Your task to perform on an android device: Search for razer thresher on amazon, select the first entry, and add it to the cart. Image 0: 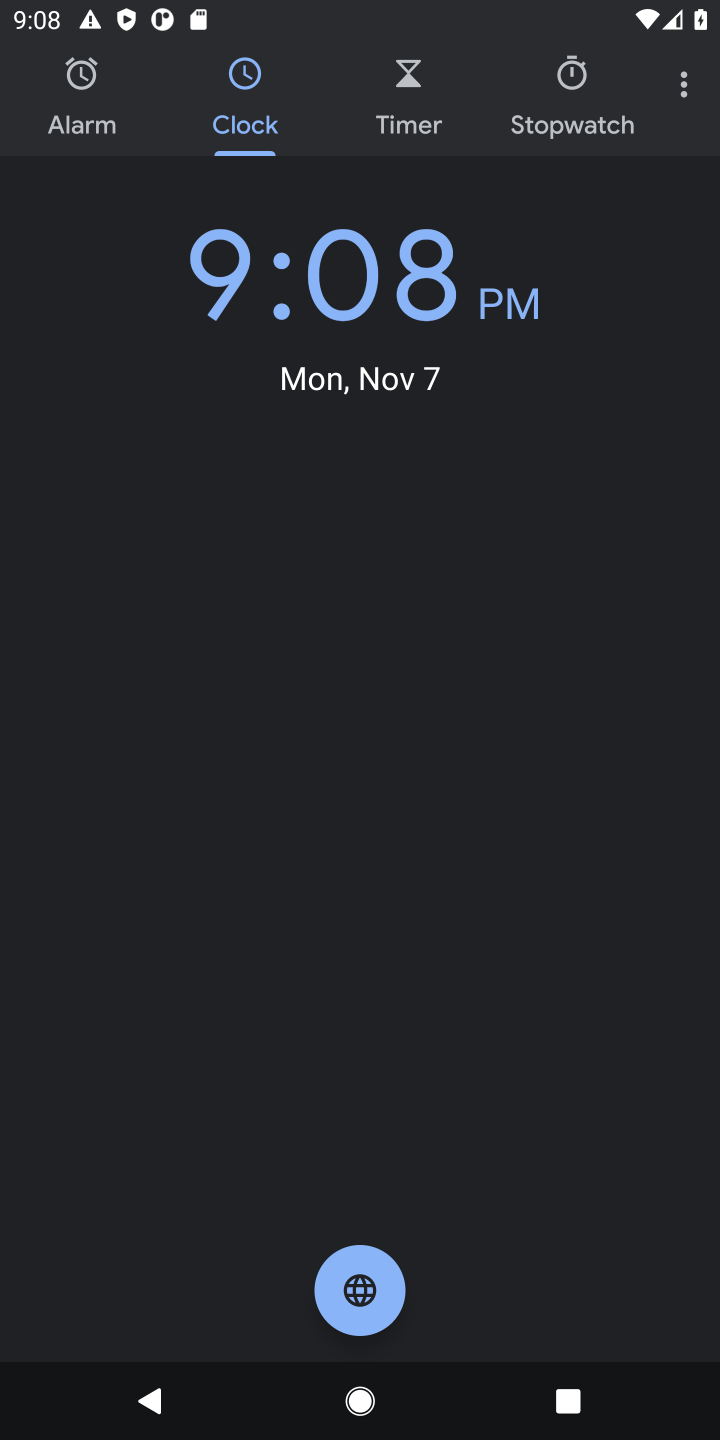
Step 0: press home button
Your task to perform on an android device: Search for razer thresher on amazon, select the first entry, and add it to the cart. Image 1: 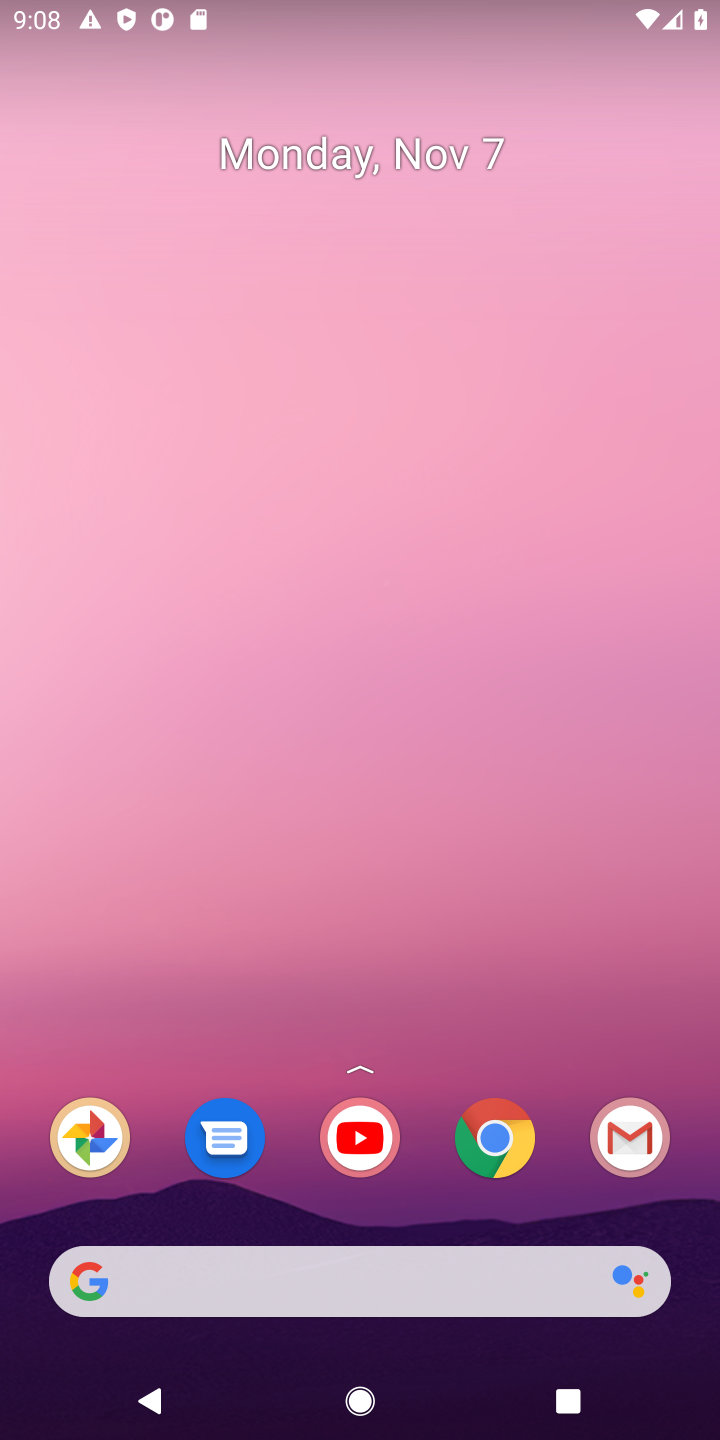
Step 1: drag from (290, 1222) to (403, 304)
Your task to perform on an android device: Search for razer thresher on amazon, select the first entry, and add it to the cart. Image 2: 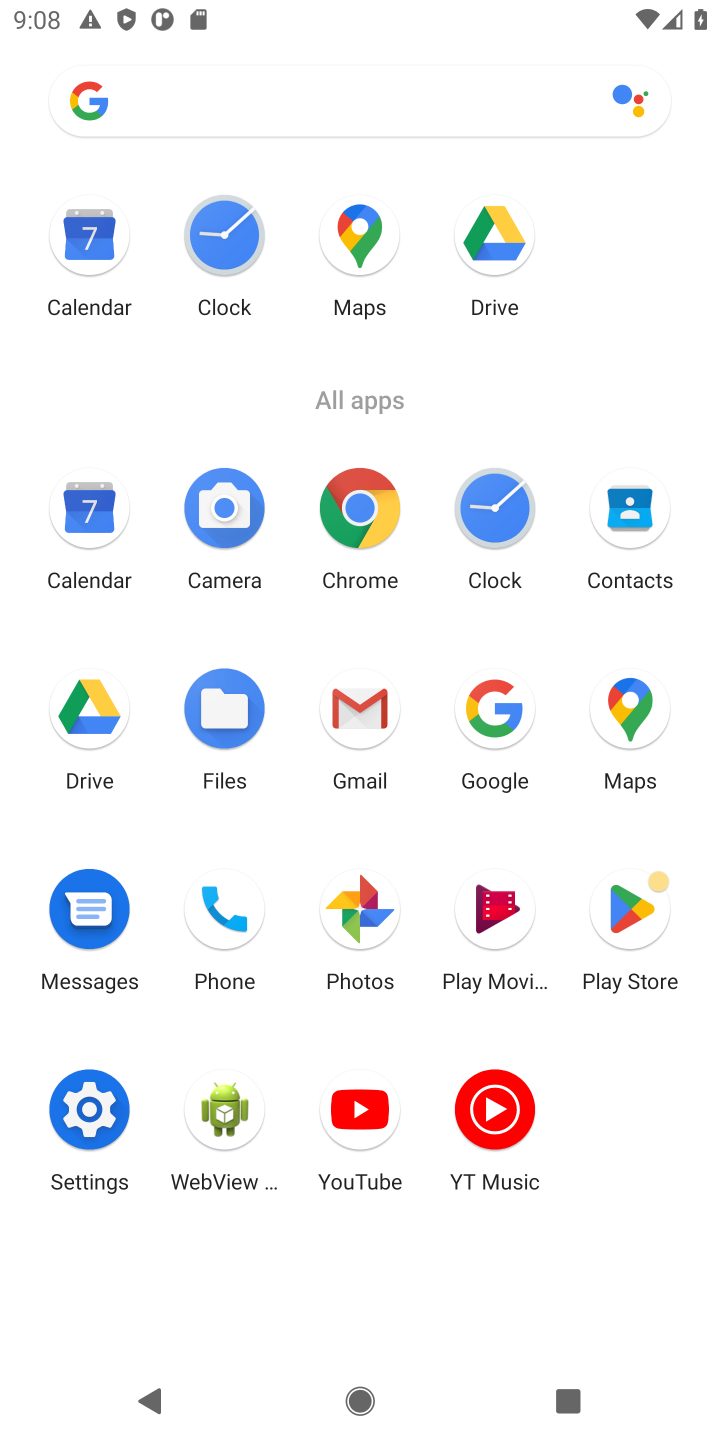
Step 2: click (361, 504)
Your task to perform on an android device: Search for razer thresher on amazon, select the first entry, and add it to the cart. Image 3: 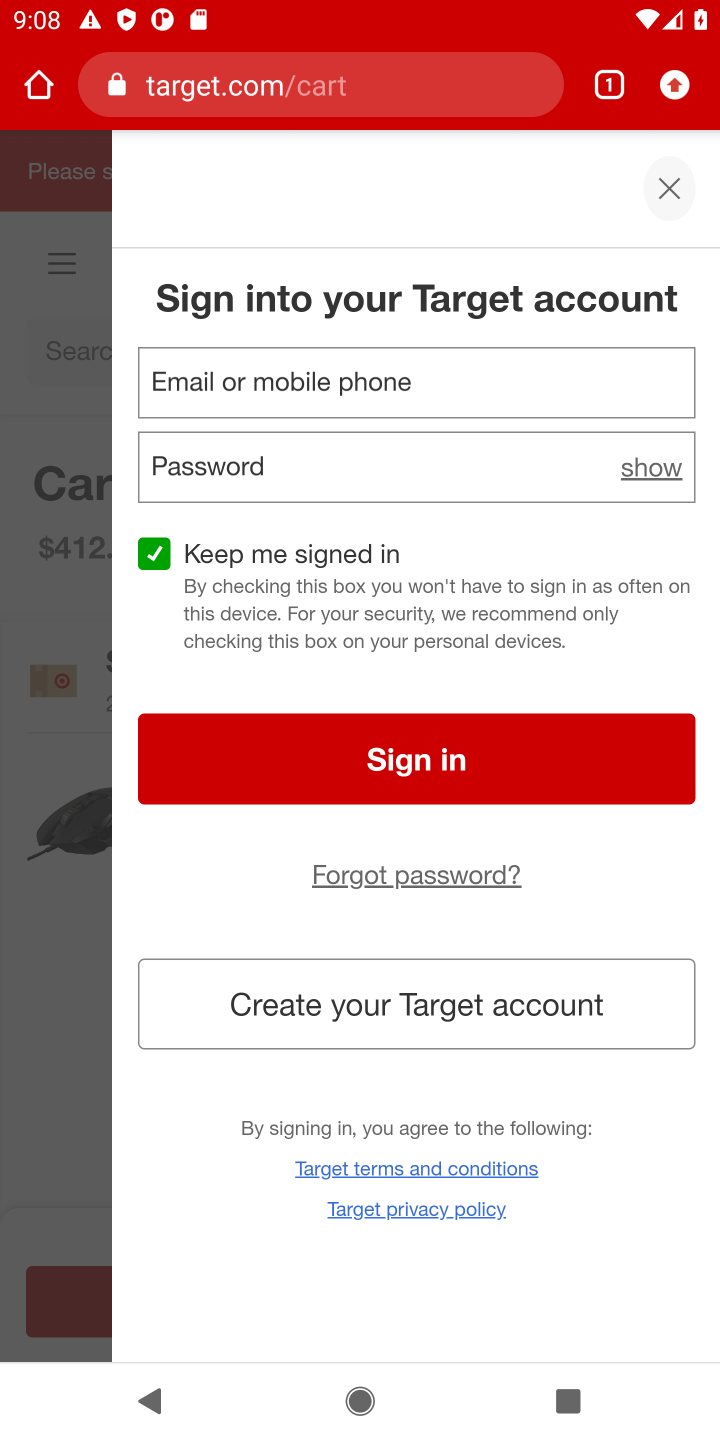
Step 3: click (469, 81)
Your task to perform on an android device: Search for razer thresher on amazon, select the first entry, and add it to the cart. Image 4: 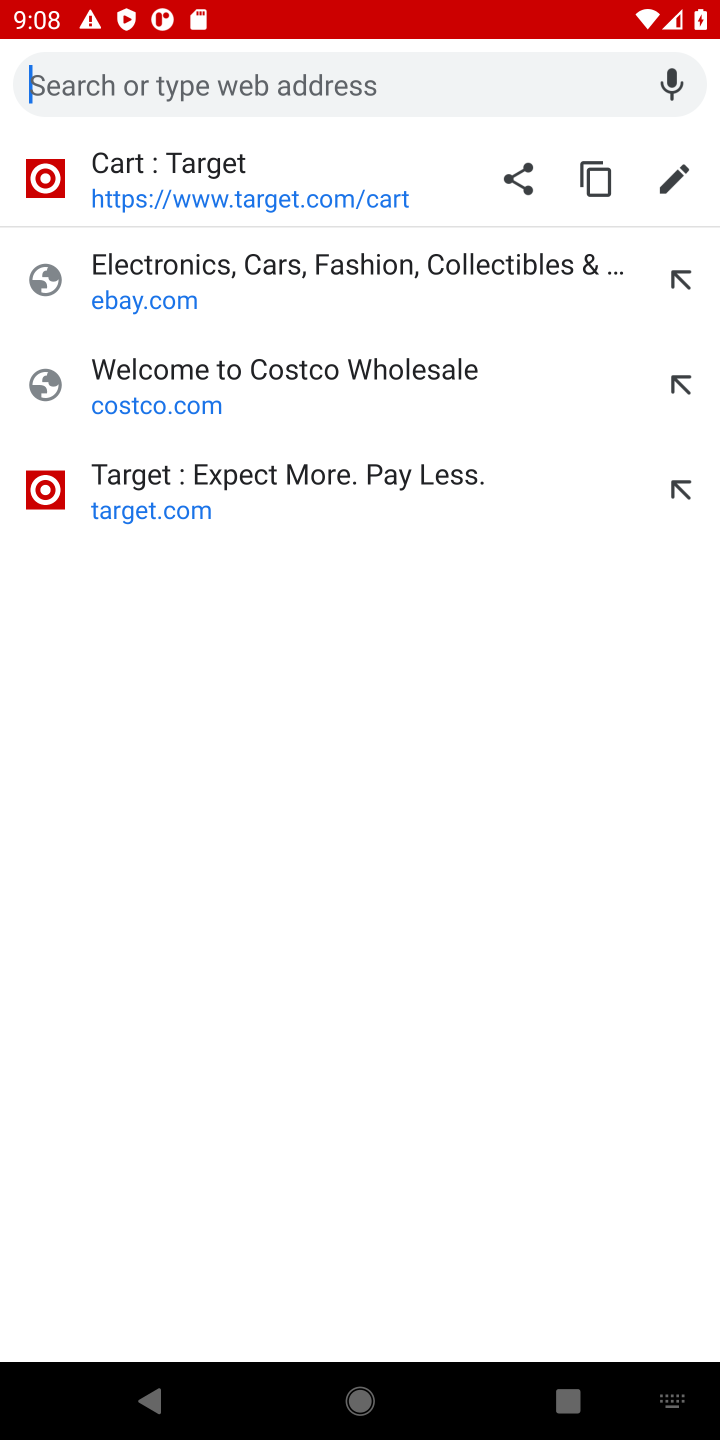
Step 4: type "amazon.com"
Your task to perform on an android device: Search for razer thresher on amazon, select the first entry, and add it to the cart. Image 5: 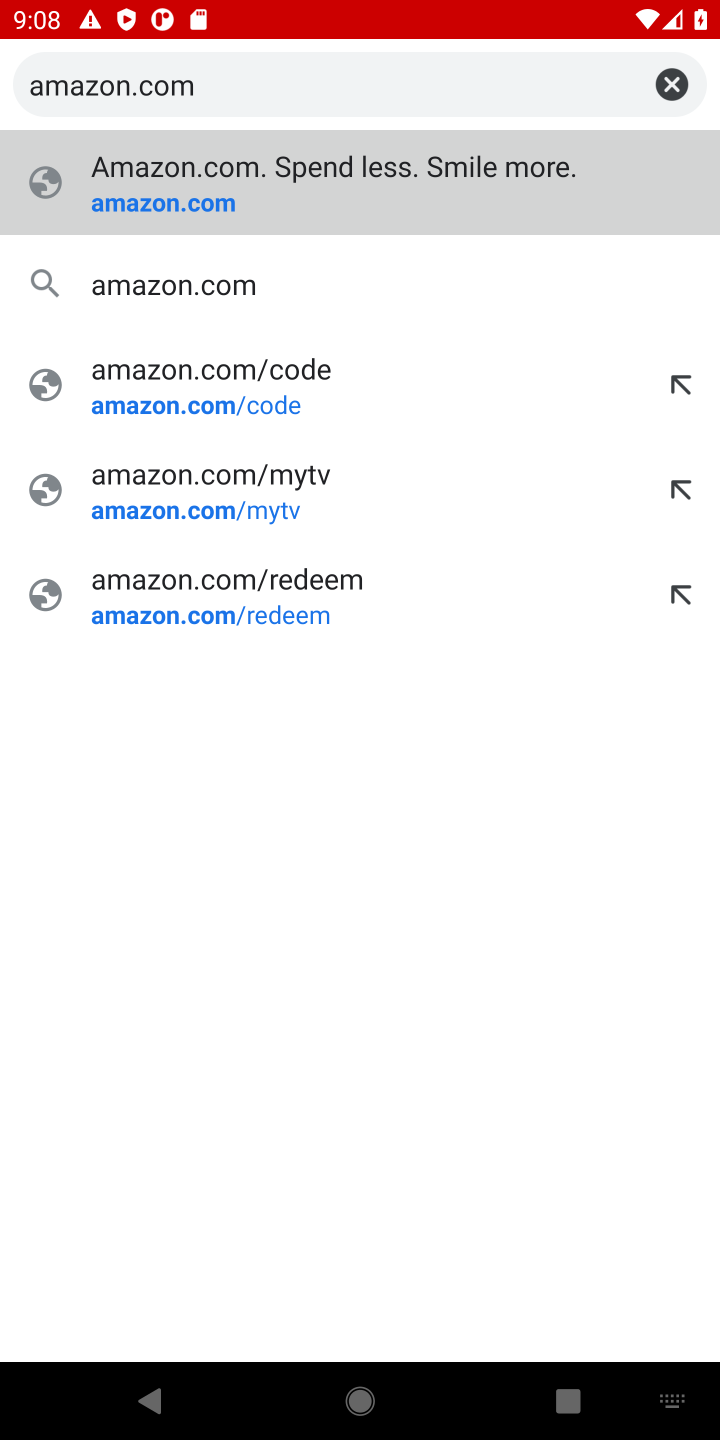
Step 5: press enter
Your task to perform on an android device: Search for razer thresher on amazon, select the first entry, and add it to the cart. Image 6: 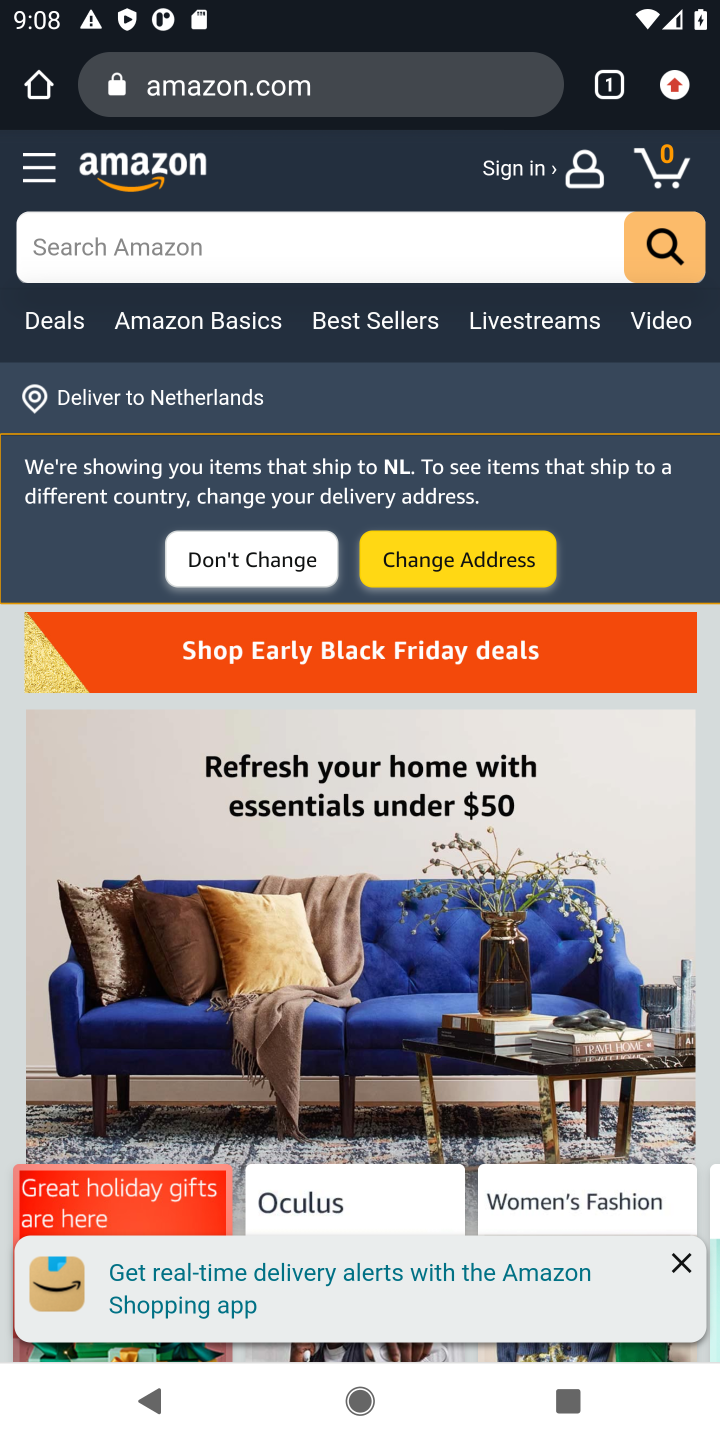
Step 6: click (440, 238)
Your task to perform on an android device: Search for razer thresher on amazon, select the first entry, and add it to the cart. Image 7: 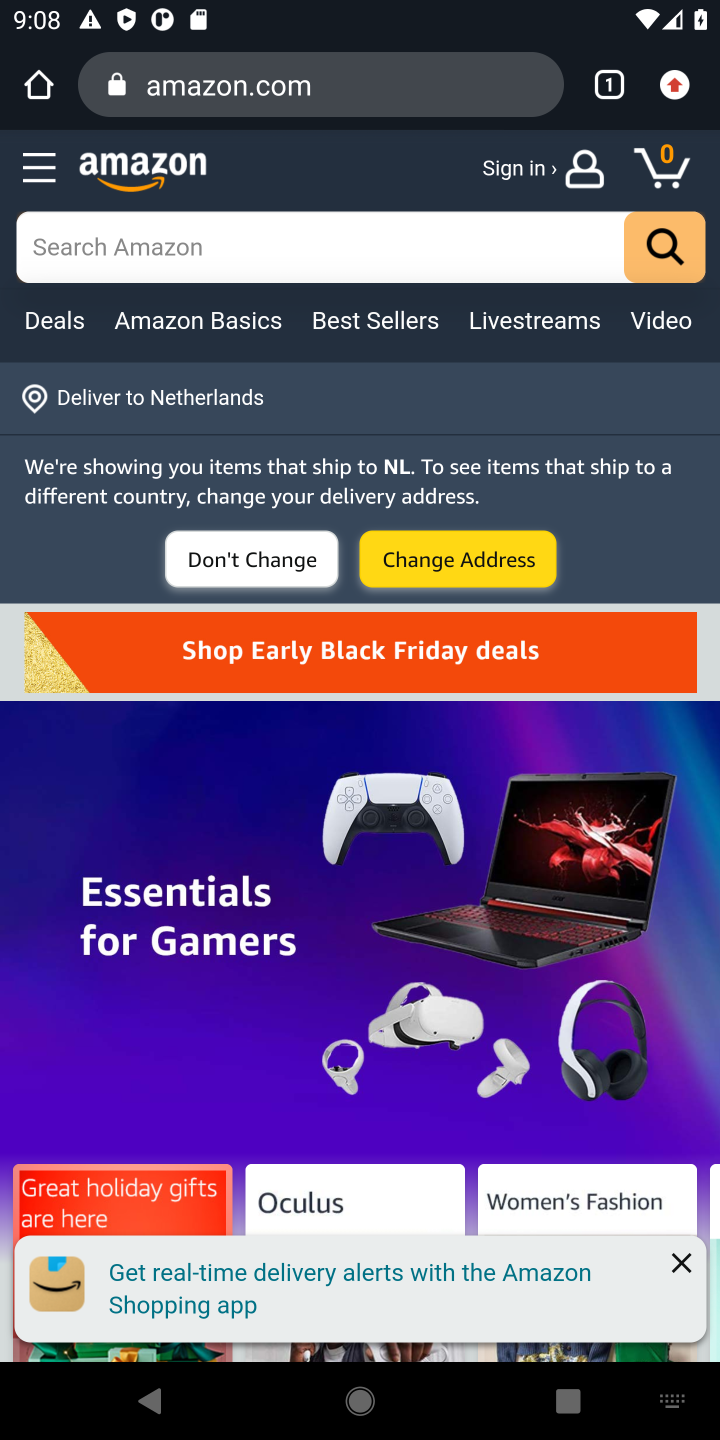
Step 7: type "razer thresher"
Your task to perform on an android device: Search for razer thresher on amazon, select the first entry, and add it to the cart. Image 8: 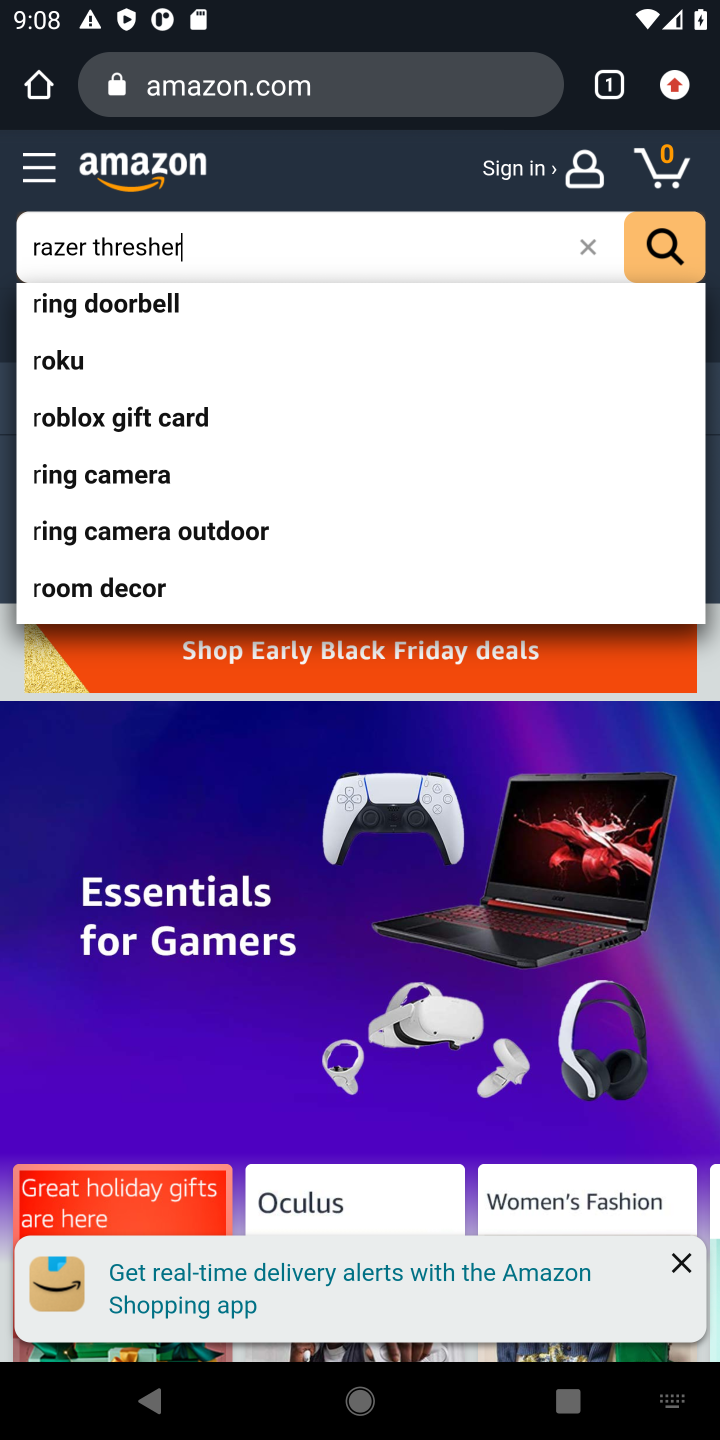
Step 8: press enter
Your task to perform on an android device: Search for razer thresher on amazon, select the first entry, and add it to the cart. Image 9: 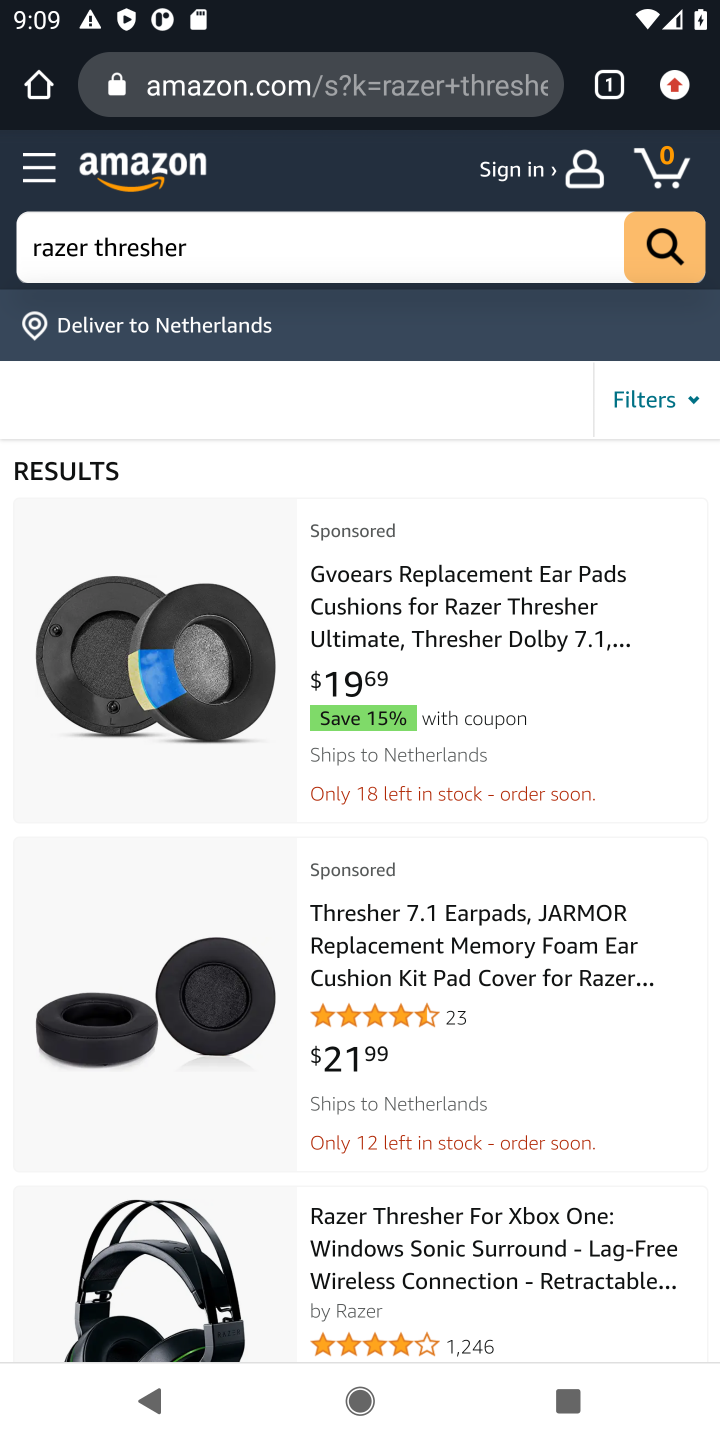
Step 9: drag from (470, 1122) to (530, 620)
Your task to perform on an android device: Search for razer thresher on amazon, select the first entry, and add it to the cart. Image 10: 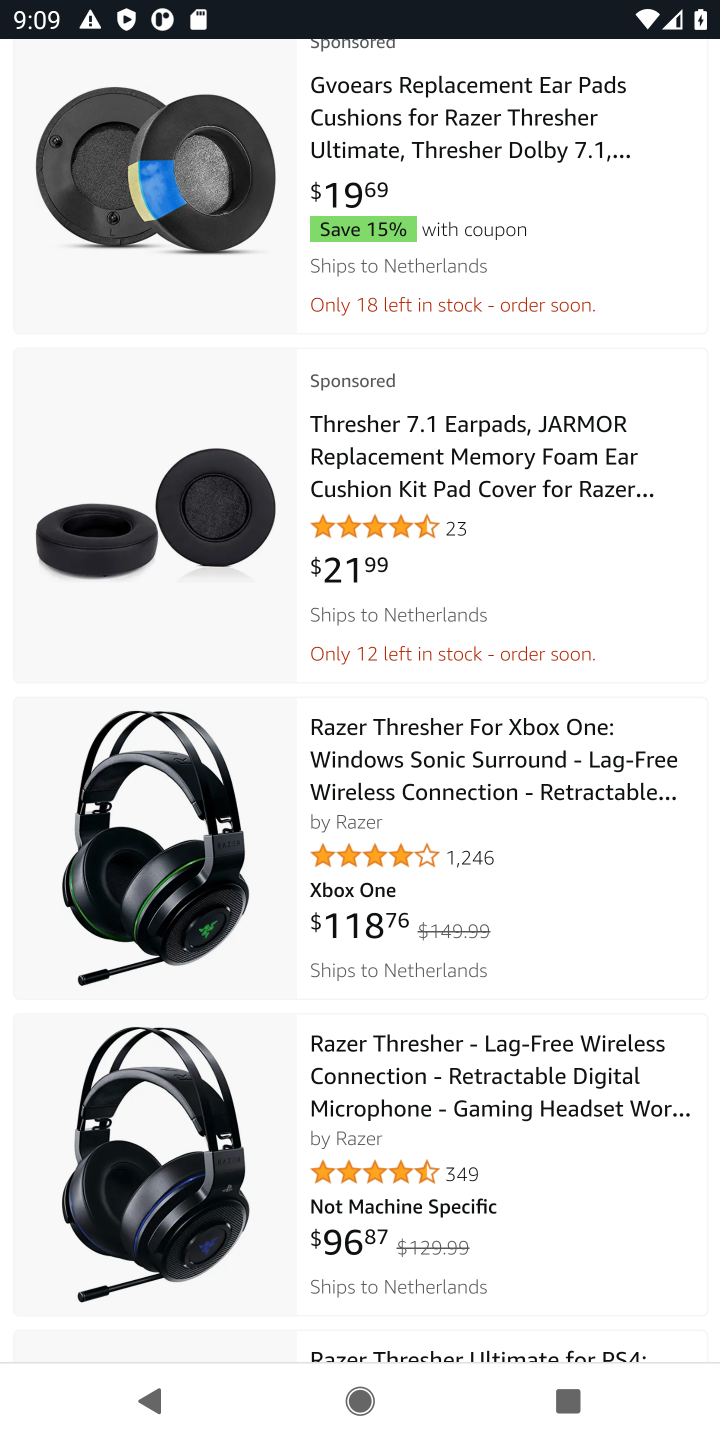
Step 10: click (434, 790)
Your task to perform on an android device: Search for razer thresher on amazon, select the first entry, and add it to the cart. Image 11: 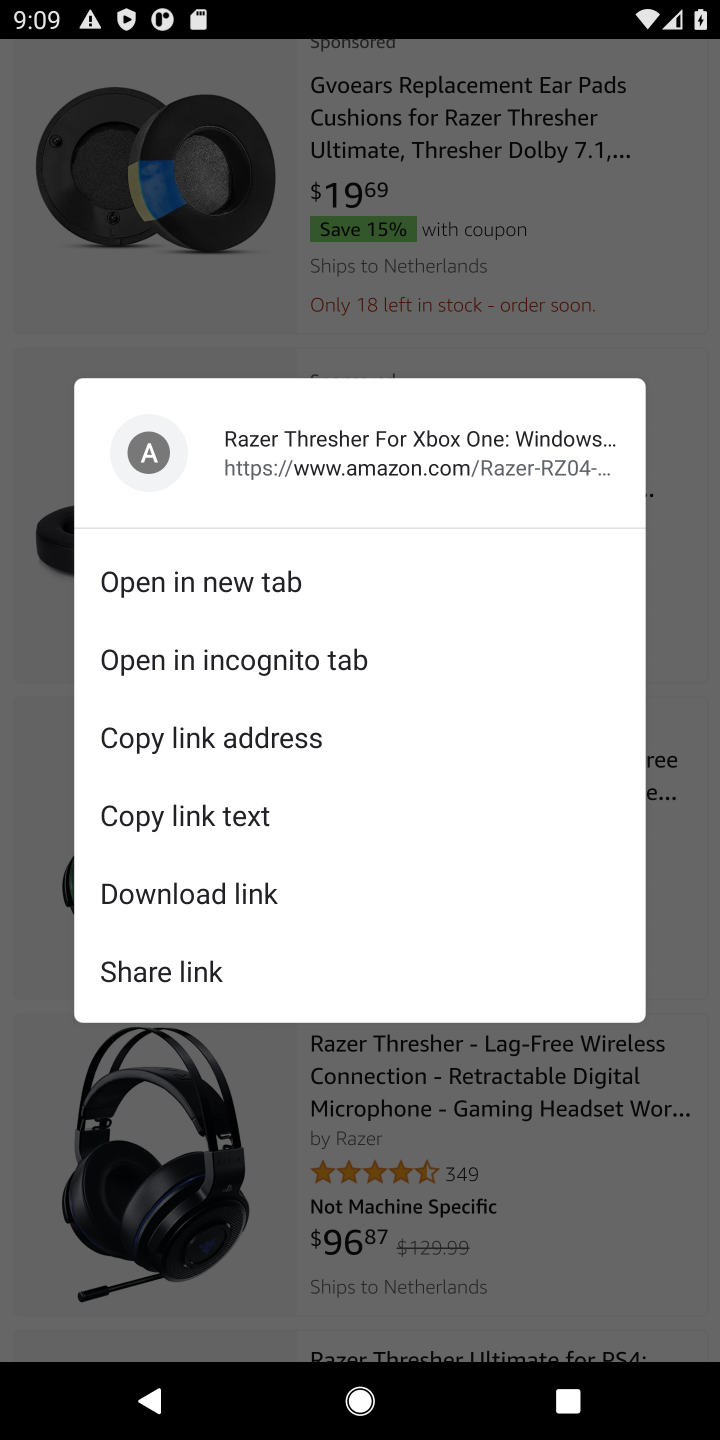
Step 11: click (691, 740)
Your task to perform on an android device: Search for razer thresher on amazon, select the first entry, and add it to the cart. Image 12: 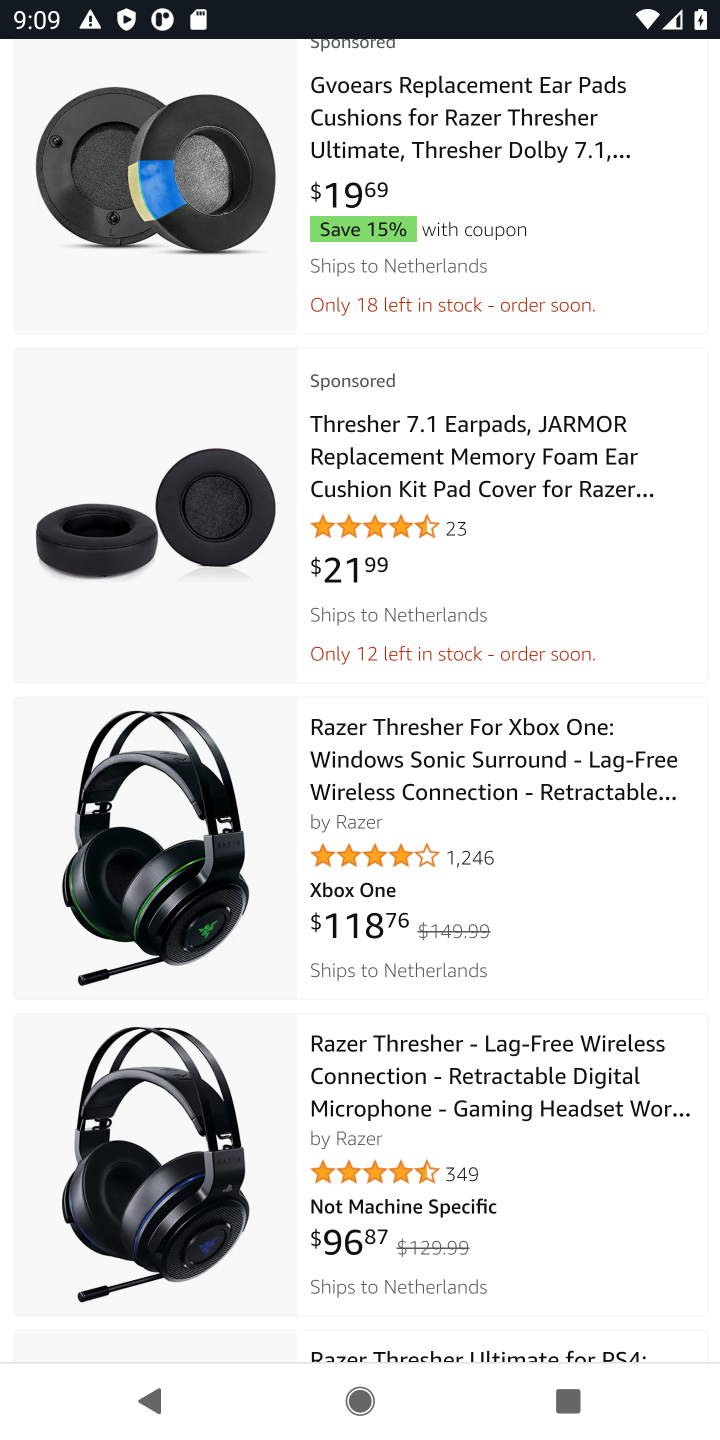
Step 12: click (417, 767)
Your task to perform on an android device: Search for razer thresher on amazon, select the first entry, and add it to the cart. Image 13: 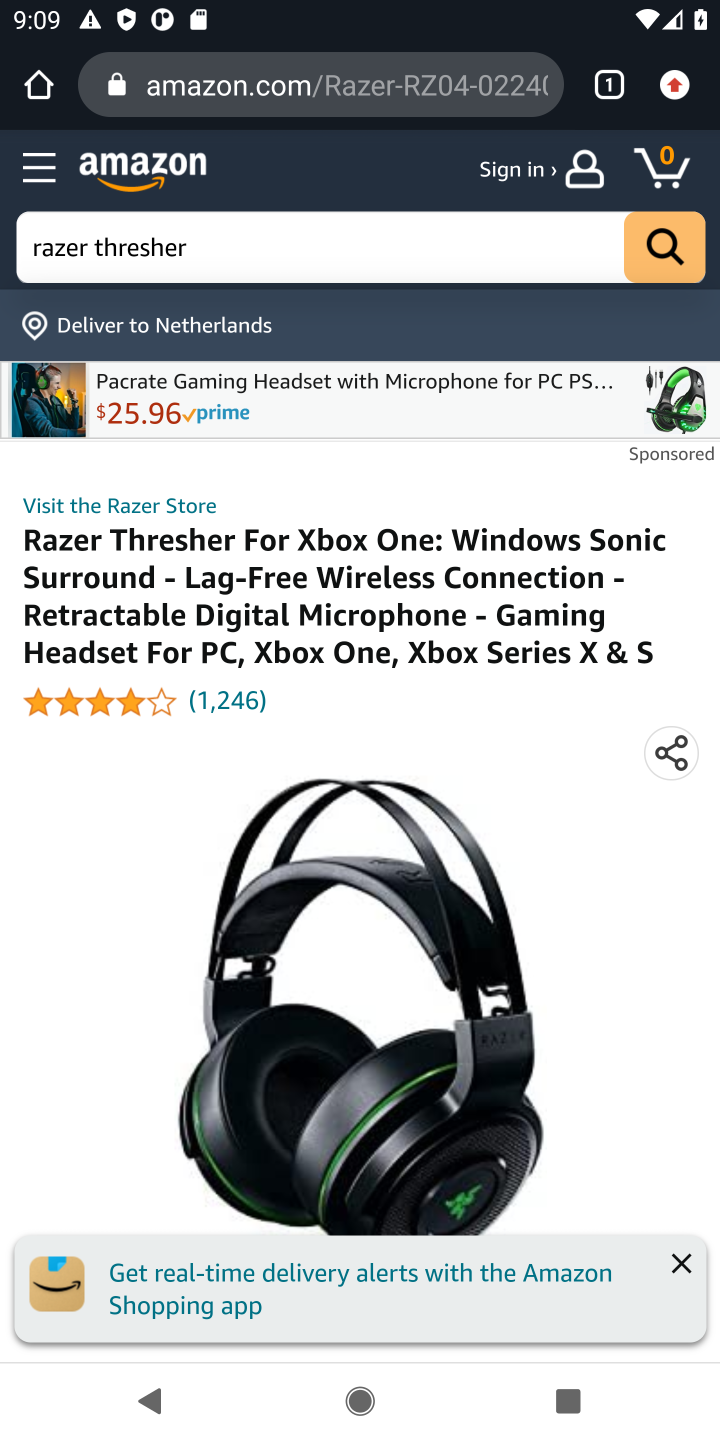
Step 13: drag from (334, 1081) to (375, 444)
Your task to perform on an android device: Search for razer thresher on amazon, select the first entry, and add it to the cart. Image 14: 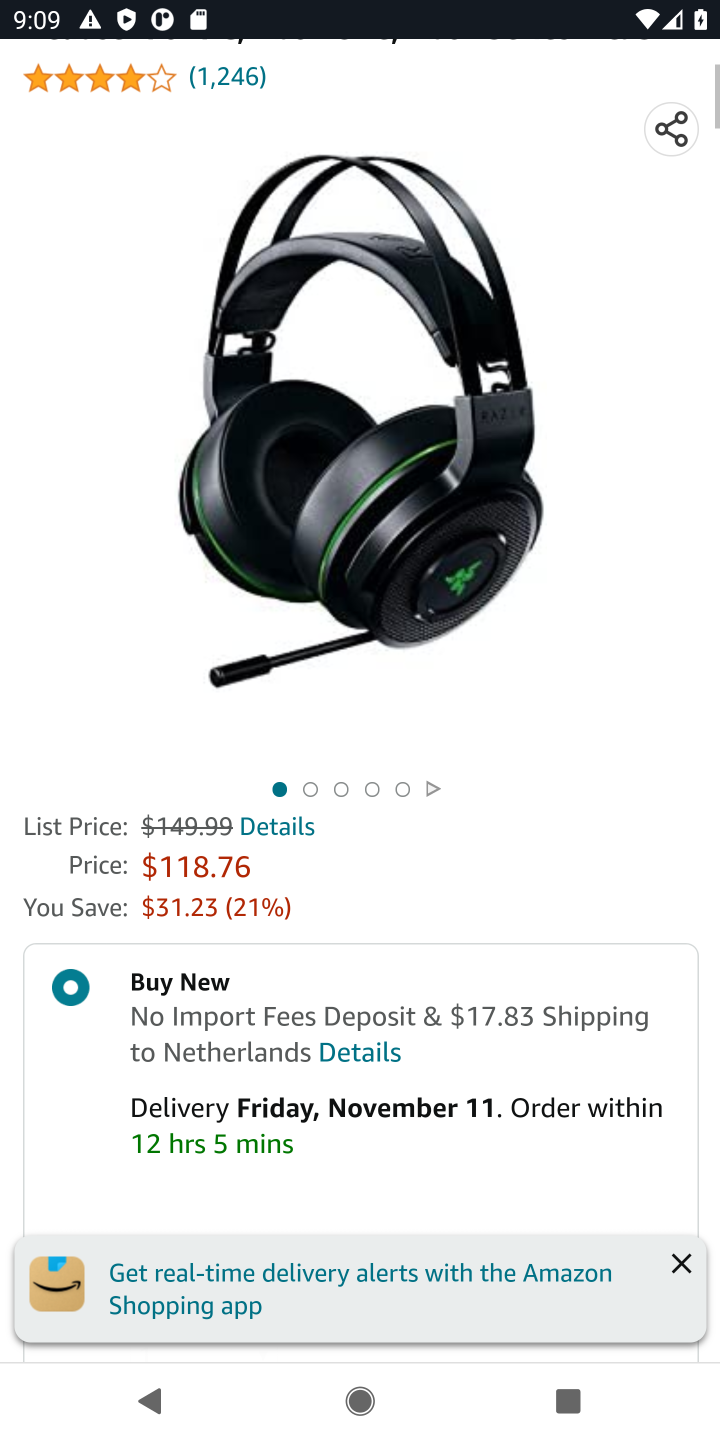
Step 14: drag from (356, 926) to (402, 483)
Your task to perform on an android device: Search for razer thresher on amazon, select the first entry, and add it to the cart. Image 15: 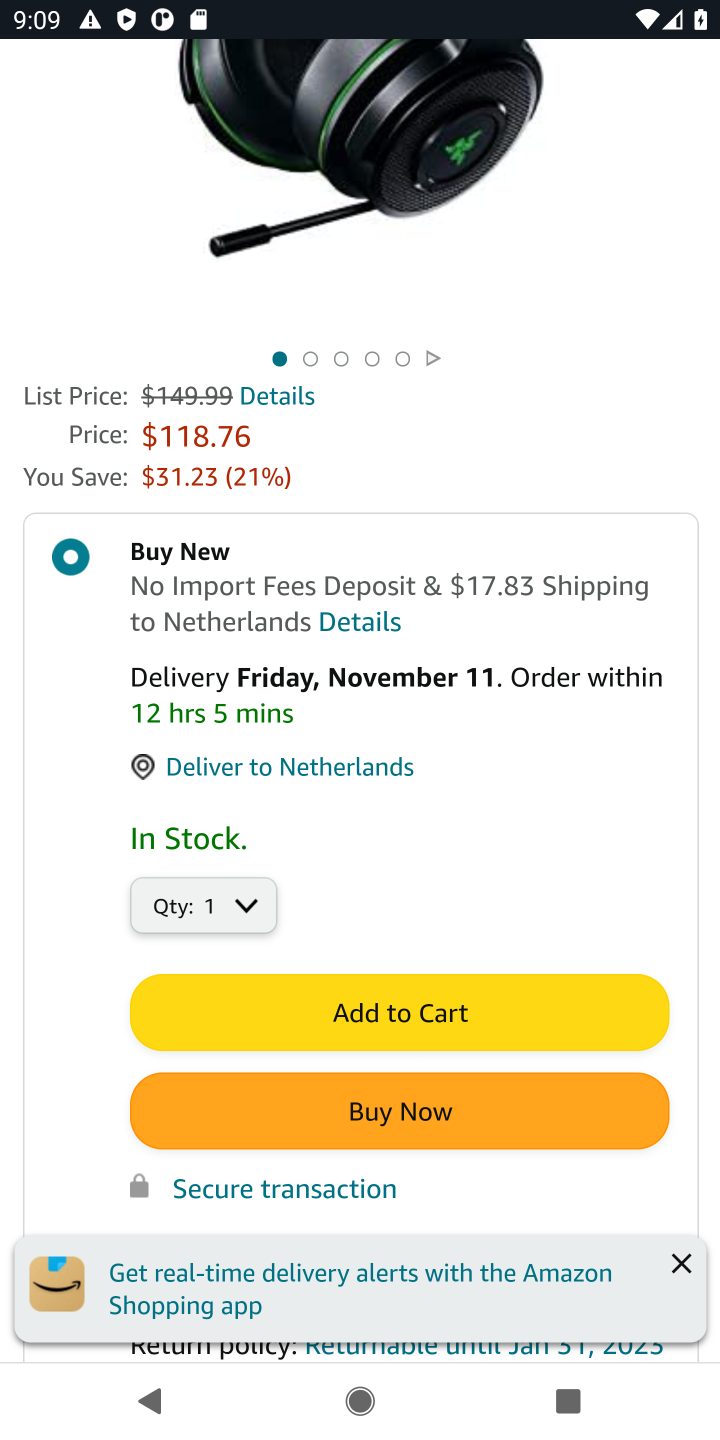
Step 15: drag from (409, 878) to (463, 625)
Your task to perform on an android device: Search for razer thresher on amazon, select the first entry, and add it to the cart. Image 16: 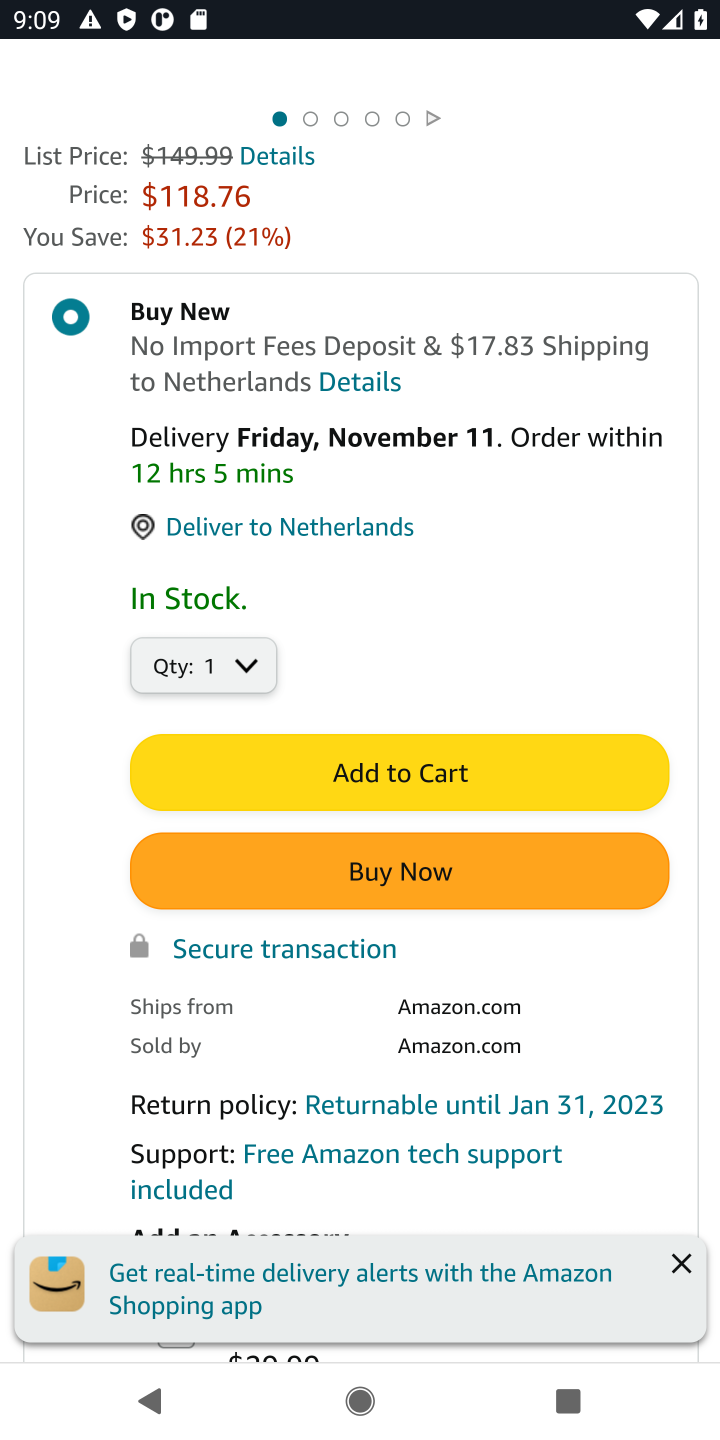
Step 16: click (426, 767)
Your task to perform on an android device: Search for razer thresher on amazon, select the first entry, and add it to the cart. Image 17: 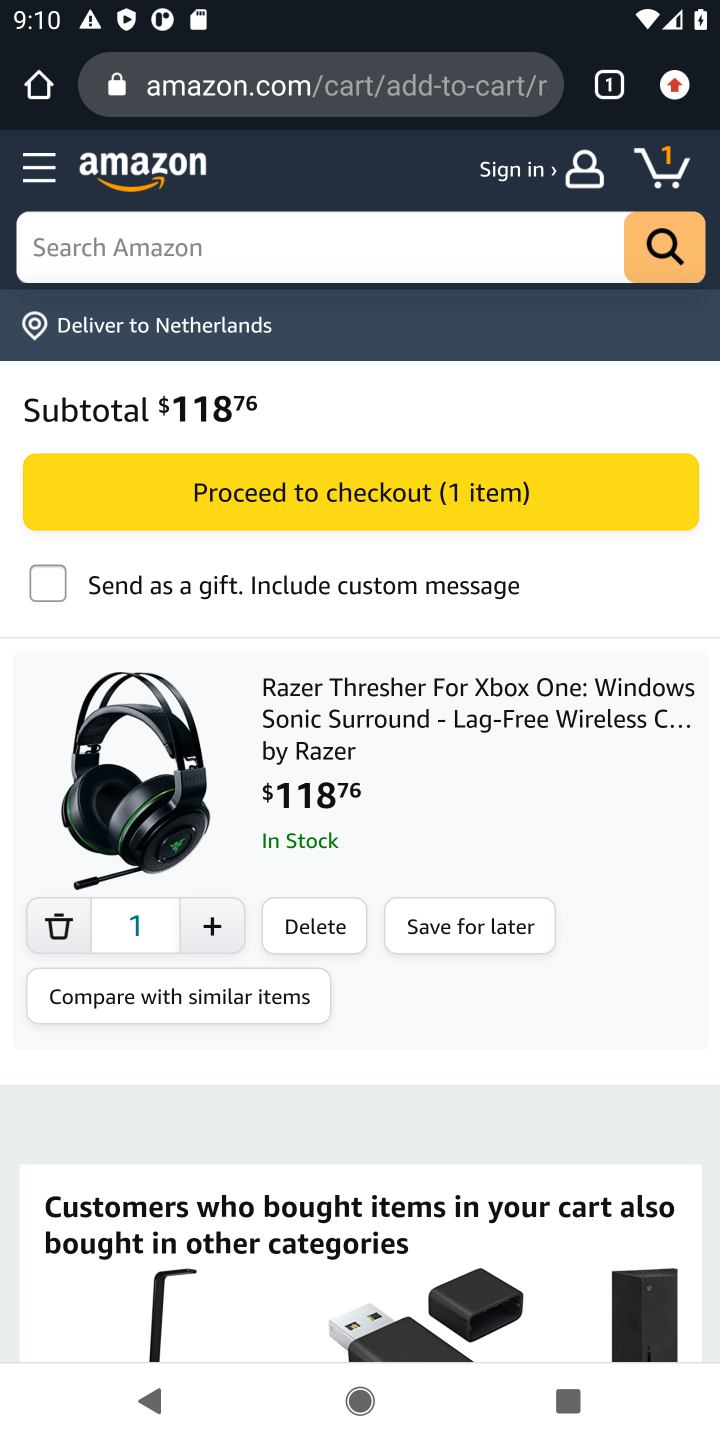
Step 17: task complete